Your task to perform on an android device: check data usage Image 0: 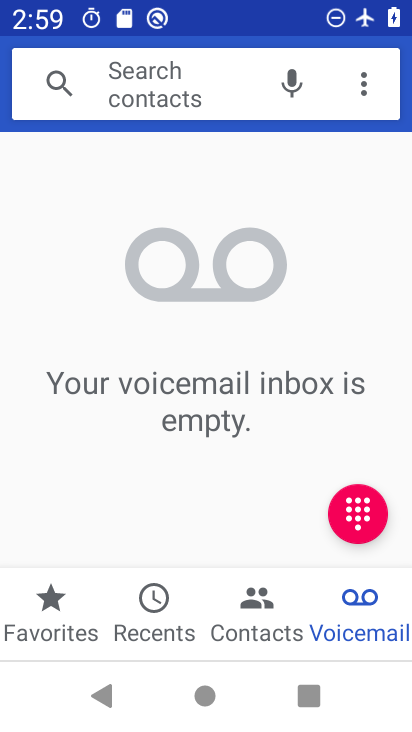
Step 0: press home button
Your task to perform on an android device: check data usage Image 1: 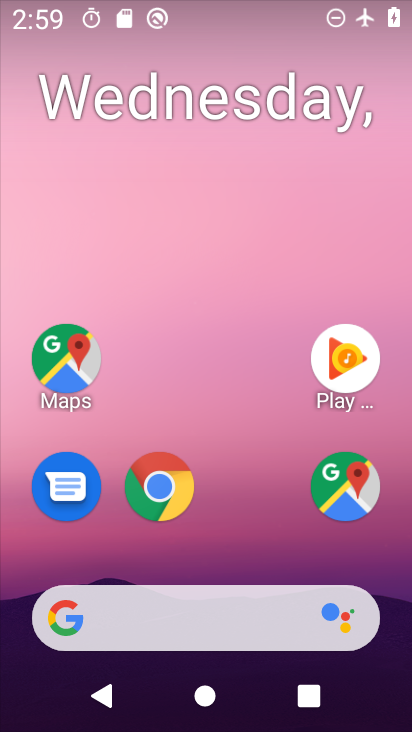
Step 1: drag from (270, 551) to (245, 109)
Your task to perform on an android device: check data usage Image 2: 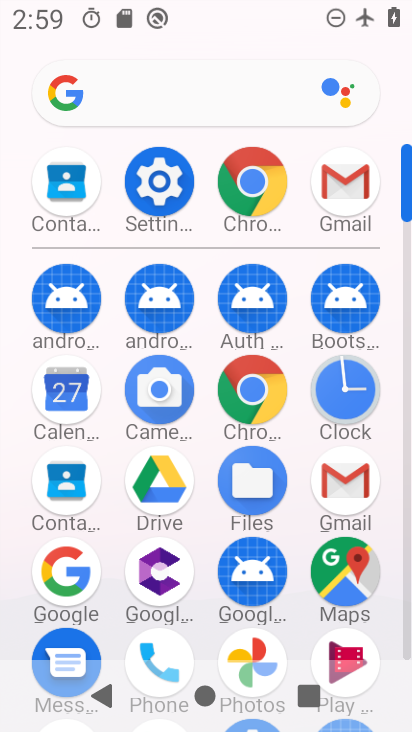
Step 2: click (166, 176)
Your task to perform on an android device: check data usage Image 3: 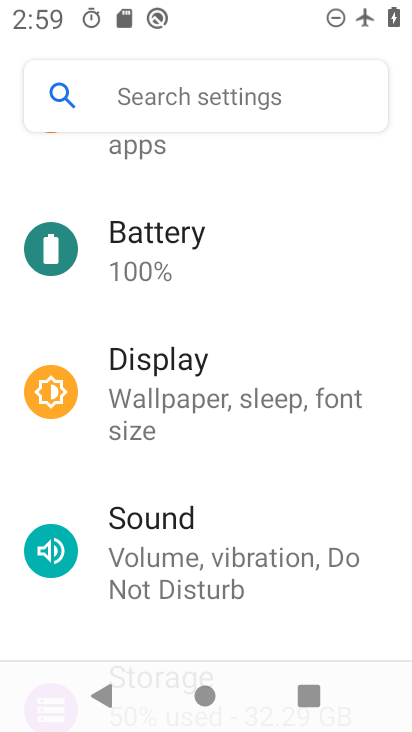
Step 3: drag from (346, 196) to (344, 312)
Your task to perform on an android device: check data usage Image 4: 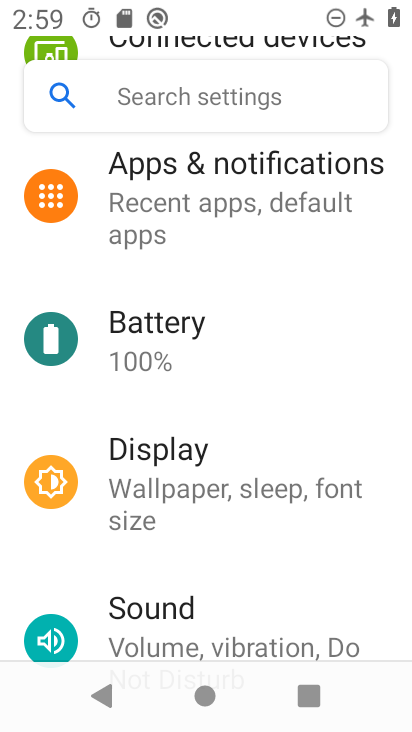
Step 4: drag from (387, 188) to (387, 383)
Your task to perform on an android device: check data usage Image 5: 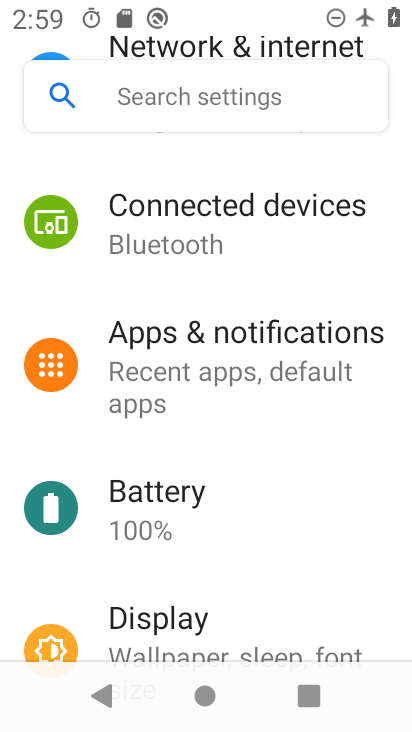
Step 5: drag from (379, 247) to (383, 353)
Your task to perform on an android device: check data usage Image 6: 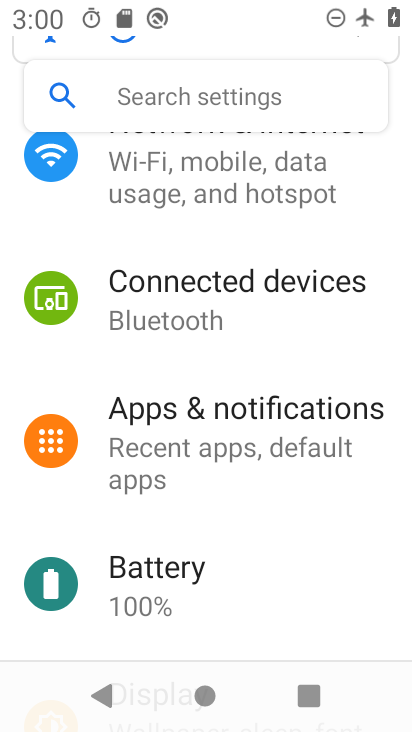
Step 6: drag from (376, 182) to (391, 332)
Your task to perform on an android device: check data usage Image 7: 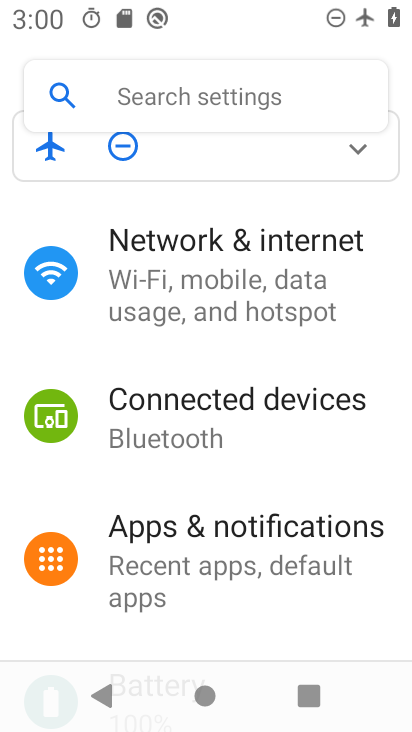
Step 7: drag from (378, 224) to (373, 376)
Your task to perform on an android device: check data usage Image 8: 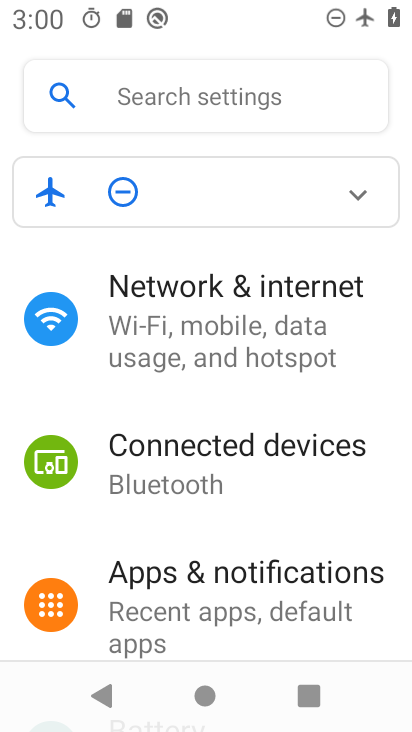
Step 8: drag from (375, 432) to (379, 352)
Your task to perform on an android device: check data usage Image 9: 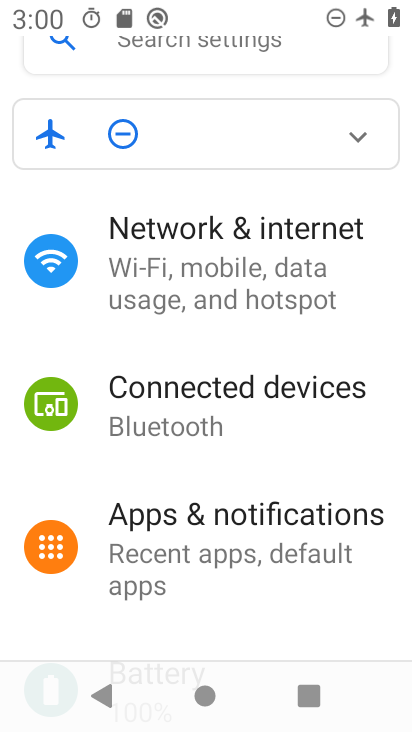
Step 9: drag from (364, 451) to (368, 363)
Your task to perform on an android device: check data usage Image 10: 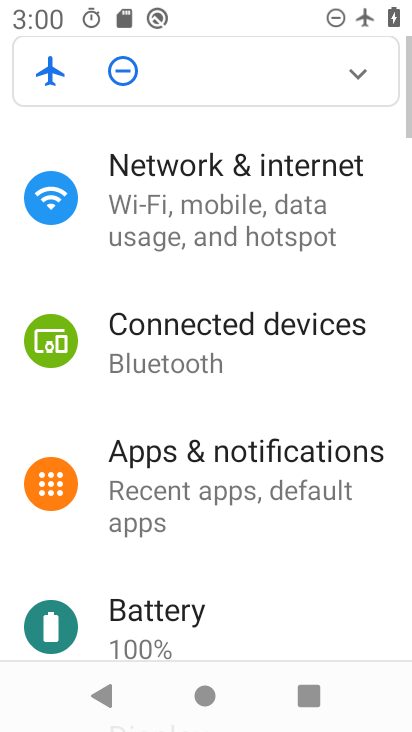
Step 10: drag from (354, 459) to (363, 397)
Your task to perform on an android device: check data usage Image 11: 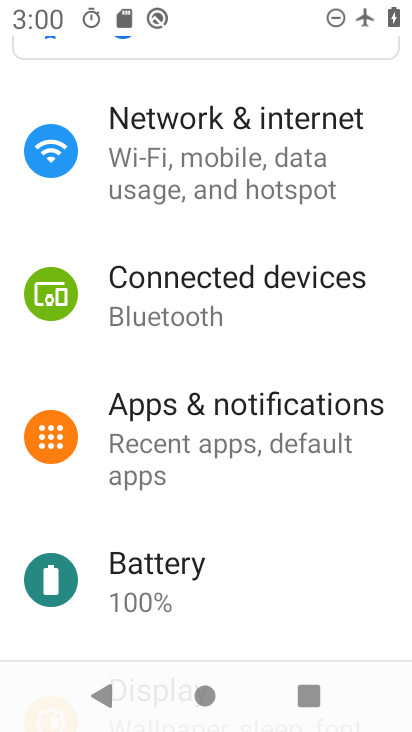
Step 11: drag from (353, 509) to (350, 426)
Your task to perform on an android device: check data usage Image 12: 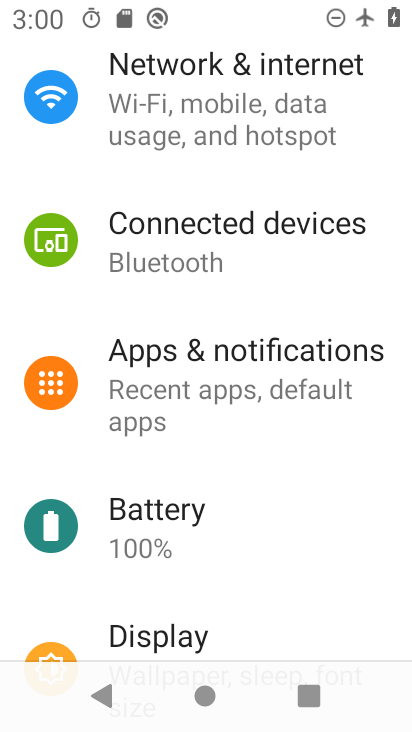
Step 12: drag from (336, 520) to (343, 428)
Your task to perform on an android device: check data usage Image 13: 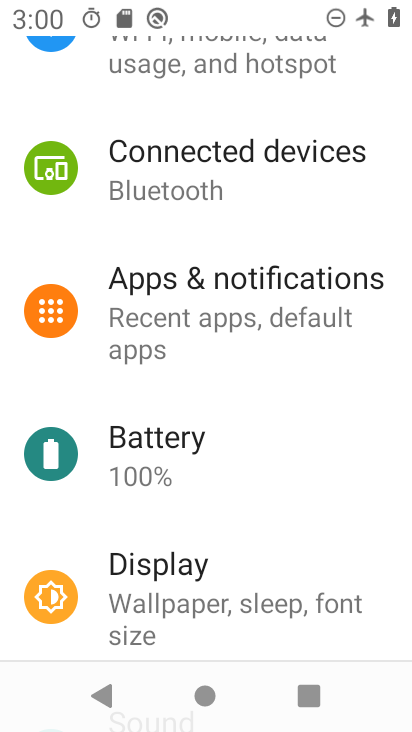
Step 13: drag from (341, 214) to (340, 303)
Your task to perform on an android device: check data usage Image 14: 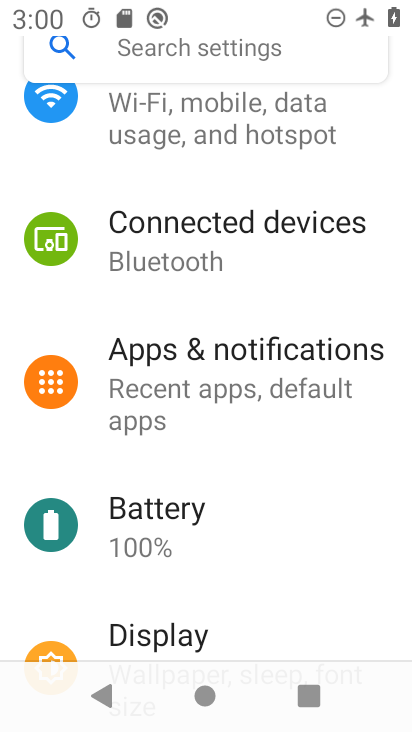
Step 14: drag from (380, 197) to (382, 287)
Your task to perform on an android device: check data usage Image 15: 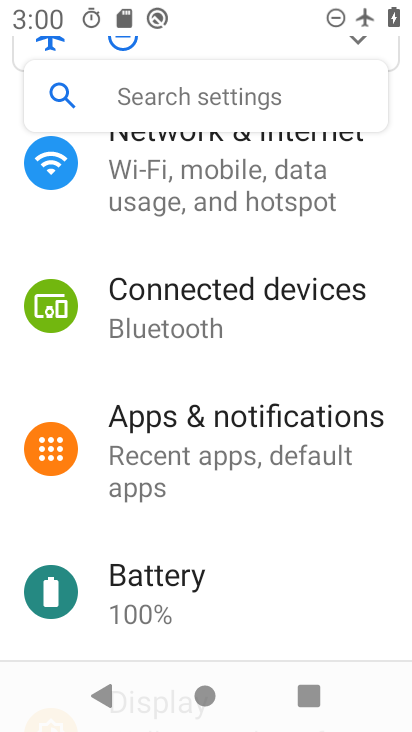
Step 15: drag from (376, 176) to (368, 318)
Your task to perform on an android device: check data usage Image 16: 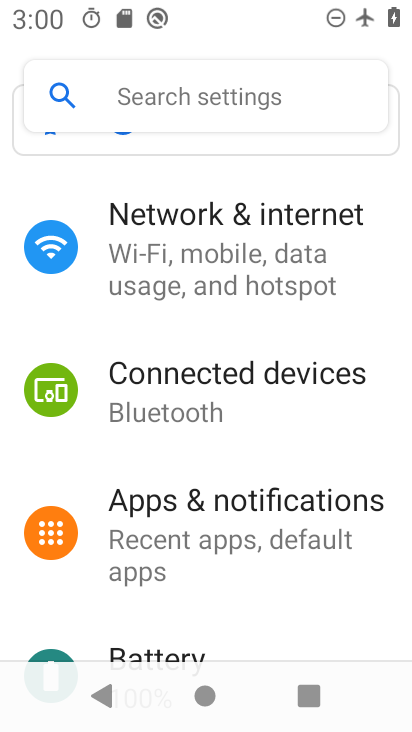
Step 16: click (296, 266)
Your task to perform on an android device: check data usage Image 17: 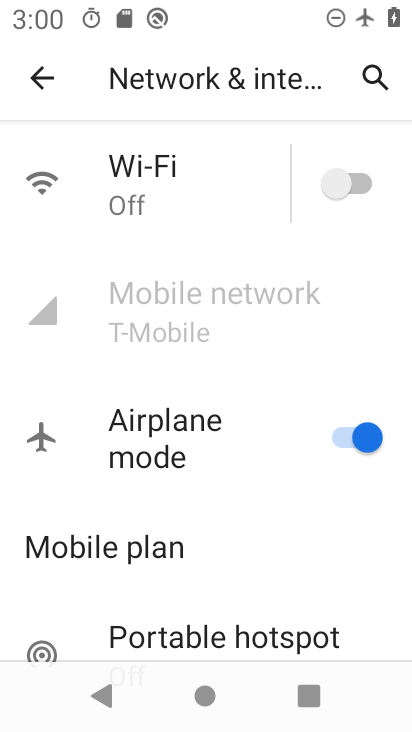
Step 17: task complete